Your task to perform on an android device: Turn on the flashlight Image 0: 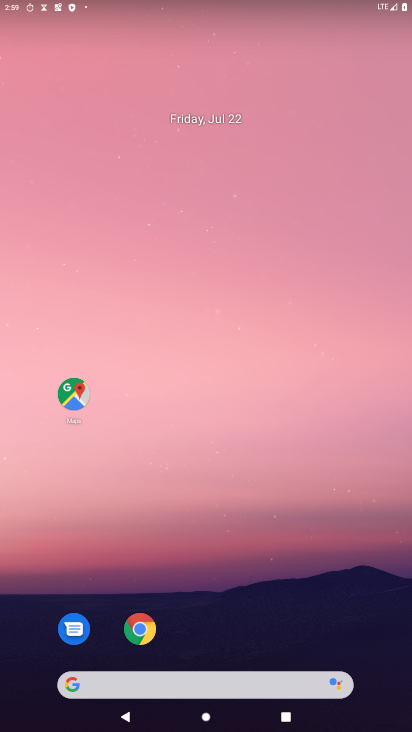
Step 0: drag from (117, 45) to (128, 557)
Your task to perform on an android device: Turn on the flashlight Image 1: 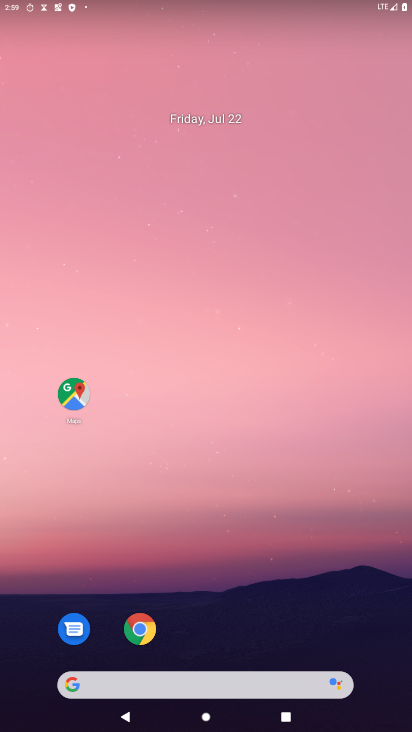
Step 1: click (171, 300)
Your task to perform on an android device: Turn on the flashlight Image 2: 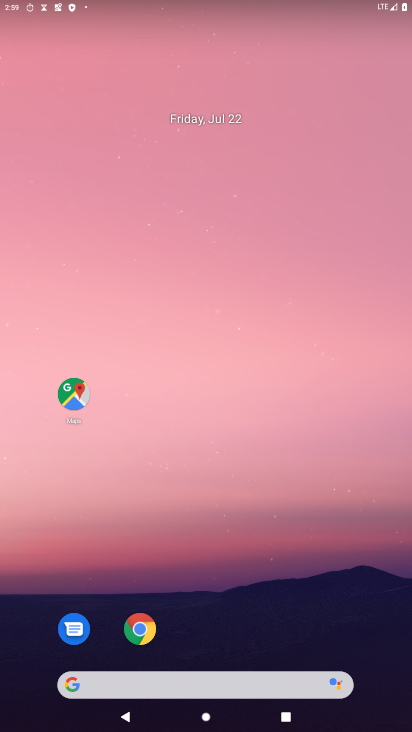
Step 2: task complete